Your task to perform on an android device: Open Wikipedia Image 0: 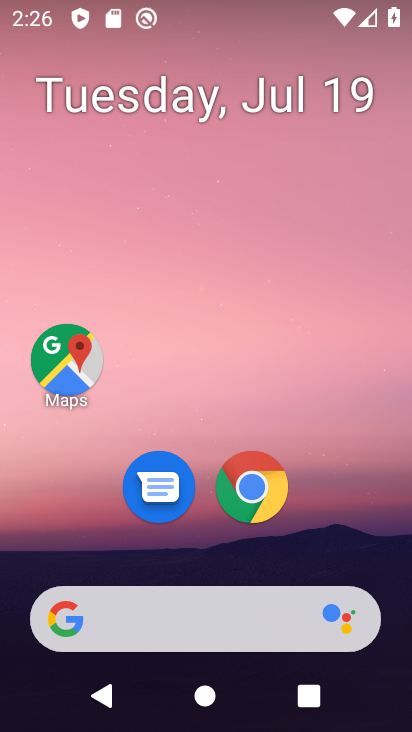
Step 0: click (259, 486)
Your task to perform on an android device: Open Wikipedia Image 1: 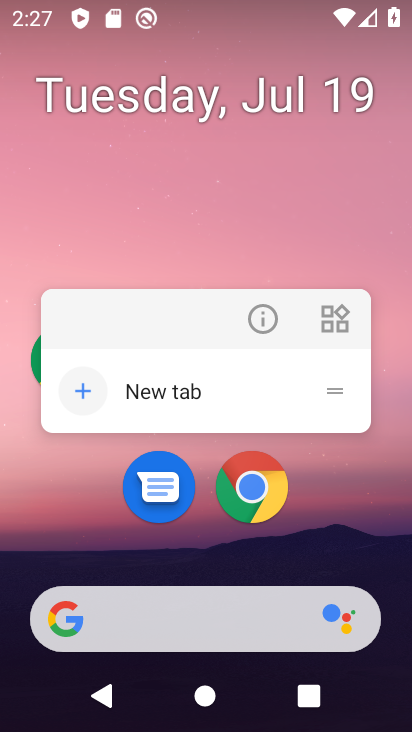
Step 1: click (258, 492)
Your task to perform on an android device: Open Wikipedia Image 2: 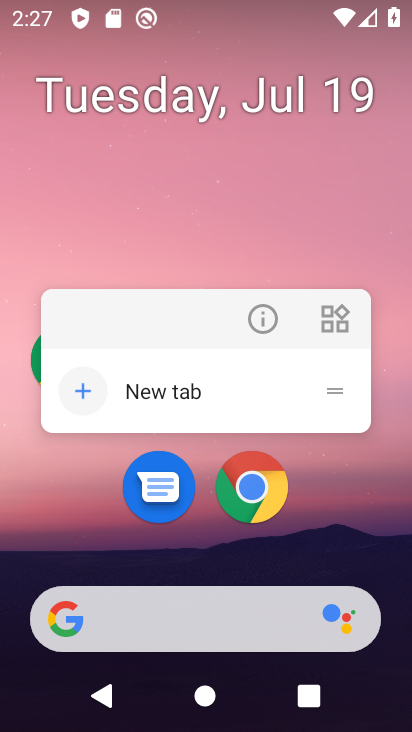
Step 2: click (253, 490)
Your task to perform on an android device: Open Wikipedia Image 3: 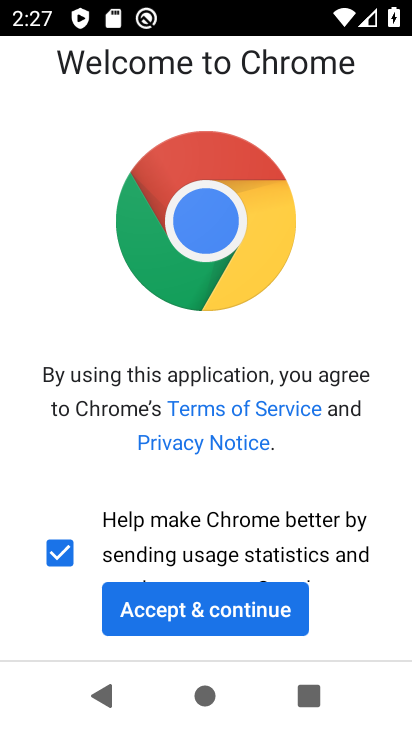
Step 3: click (194, 595)
Your task to perform on an android device: Open Wikipedia Image 4: 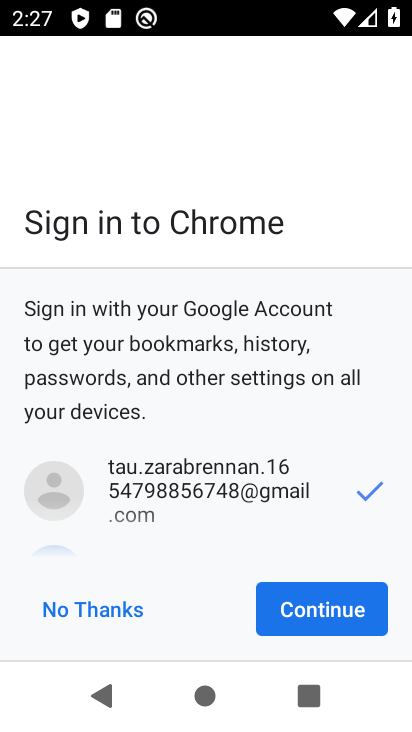
Step 4: click (304, 598)
Your task to perform on an android device: Open Wikipedia Image 5: 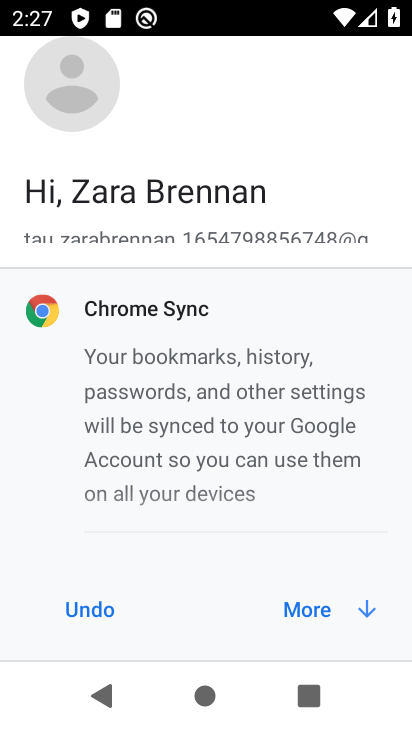
Step 5: click (303, 601)
Your task to perform on an android device: Open Wikipedia Image 6: 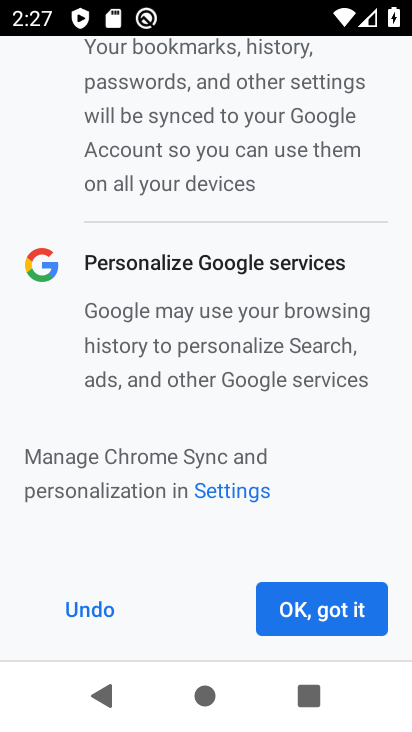
Step 6: click (296, 601)
Your task to perform on an android device: Open Wikipedia Image 7: 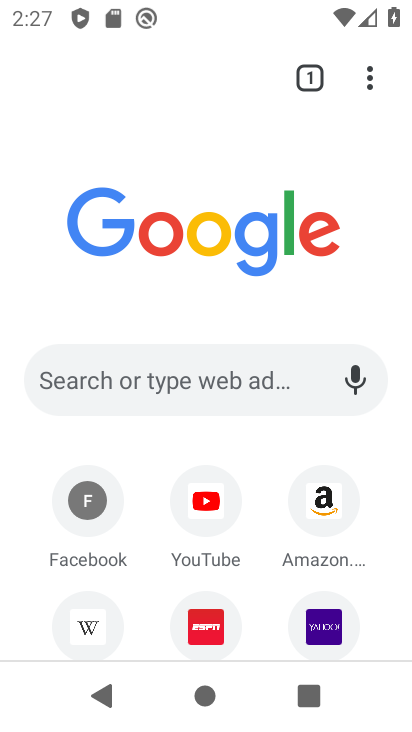
Step 7: click (80, 632)
Your task to perform on an android device: Open Wikipedia Image 8: 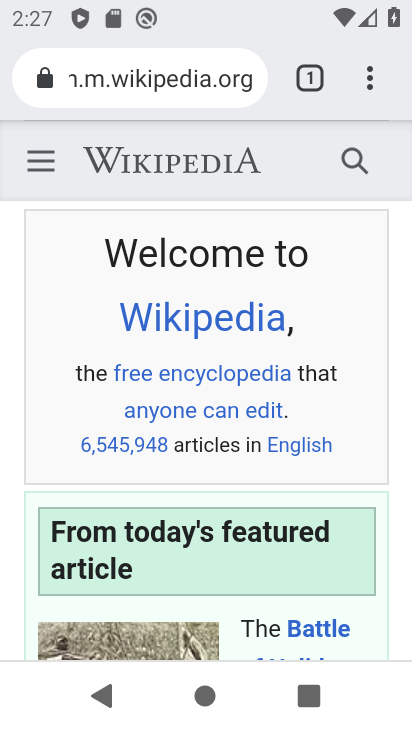
Step 8: task complete